Your task to perform on an android device: turn off data saver in the chrome app Image 0: 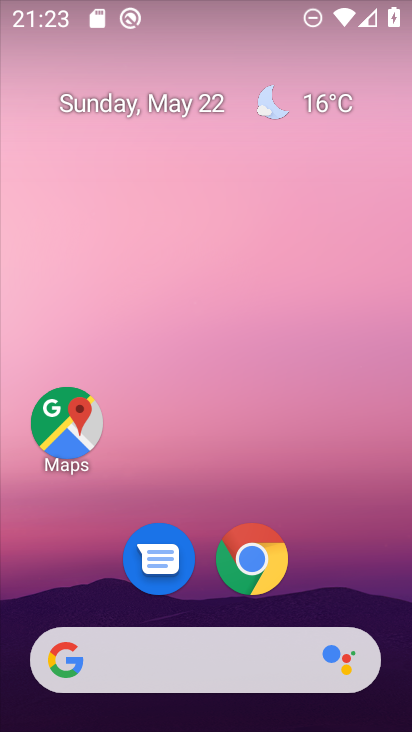
Step 0: drag from (267, 694) to (249, 140)
Your task to perform on an android device: turn off data saver in the chrome app Image 1: 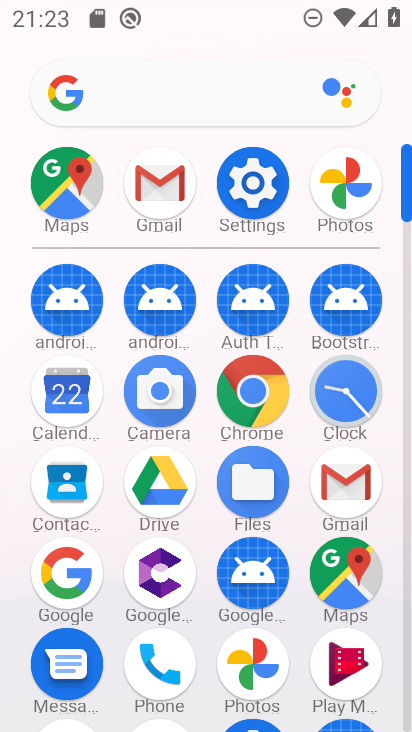
Step 1: click (248, 398)
Your task to perform on an android device: turn off data saver in the chrome app Image 2: 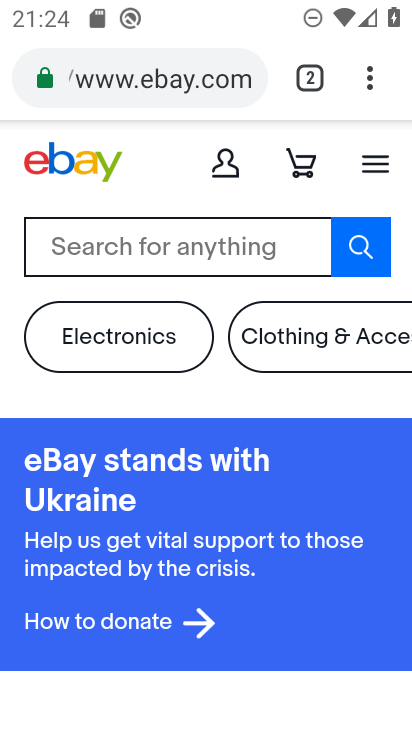
Step 2: click (364, 94)
Your task to perform on an android device: turn off data saver in the chrome app Image 3: 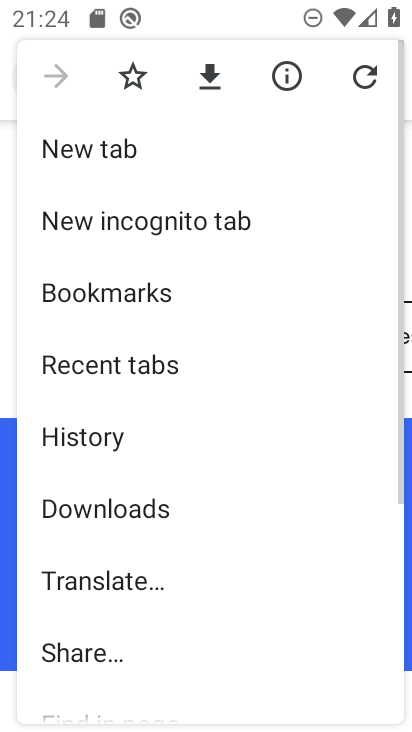
Step 3: drag from (175, 585) to (209, 314)
Your task to perform on an android device: turn off data saver in the chrome app Image 4: 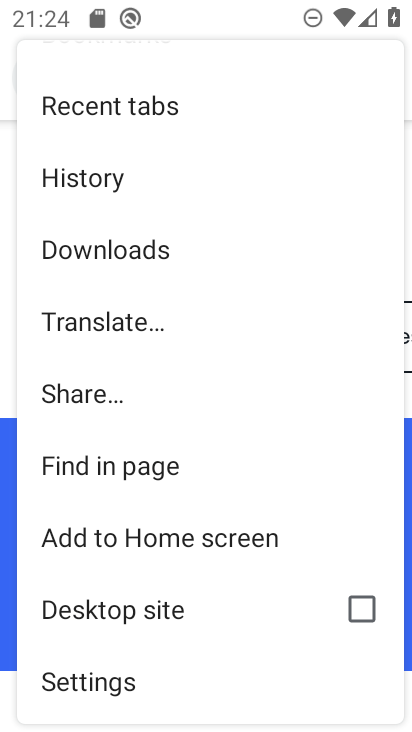
Step 4: click (126, 674)
Your task to perform on an android device: turn off data saver in the chrome app Image 5: 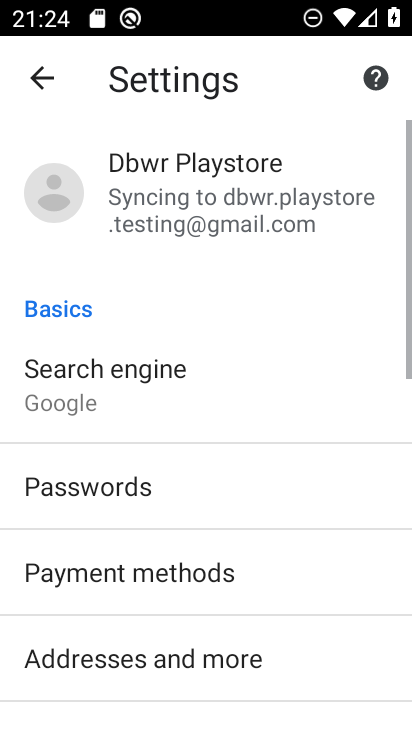
Step 5: drag from (191, 594) to (280, 174)
Your task to perform on an android device: turn off data saver in the chrome app Image 6: 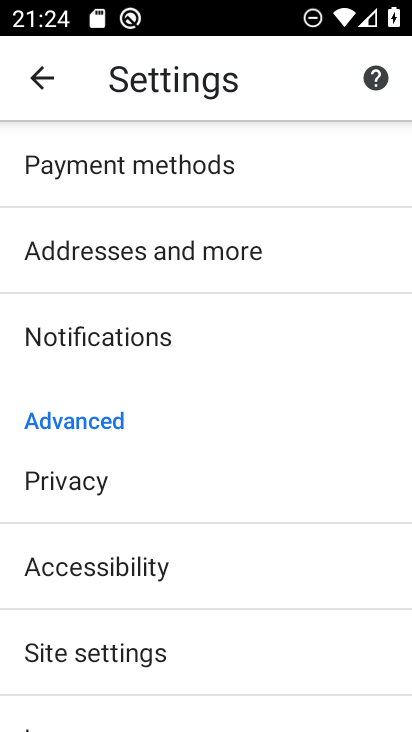
Step 6: drag from (190, 566) to (207, 297)
Your task to perform on an android device: turn off data saver in the chrome app Image 7: 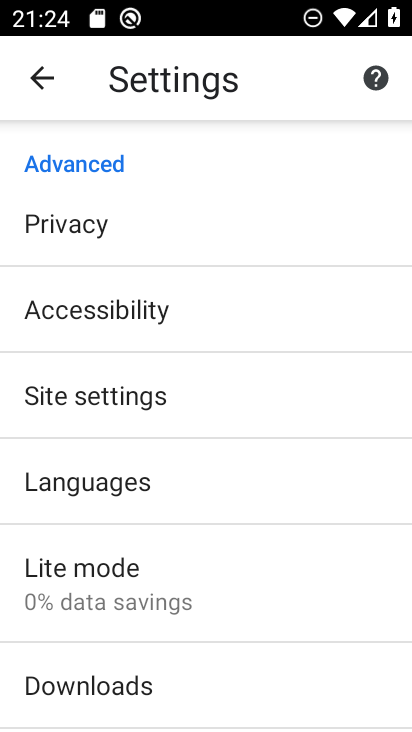
Step 7: click (140, 595)
Your task to perform on an android device: turn off data saver in the chrome app Image 8: 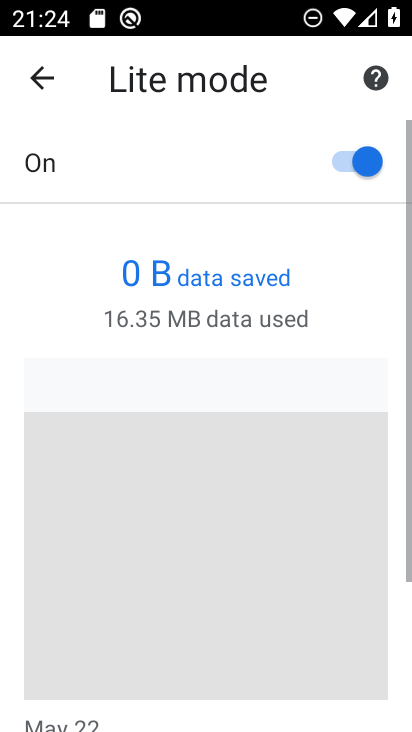
Step 8: click (346, 172)
Your task to perform on an android device: turn off data saver in the chrome app Image 9: 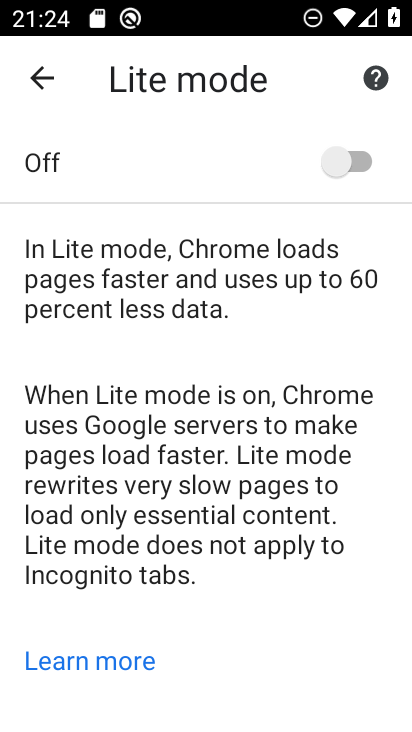
Step 9: task complete